Your task to perform on an android device: Open Yahoo.com Image 0: 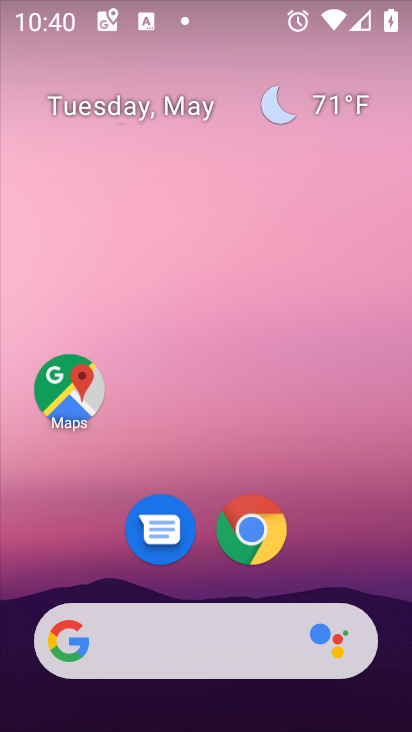
Step 0: drag from (283, 516) to (287, 252)
Your task to perform on an android device: Open Yahoo.com Image 1: 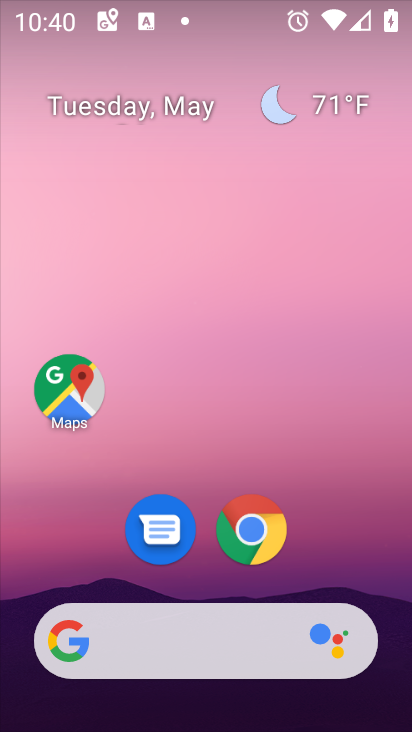
Step 1: drag from (326, 561) to (336, 205)
Your task to perform on an android device: Open Yahoo.com Image 2: 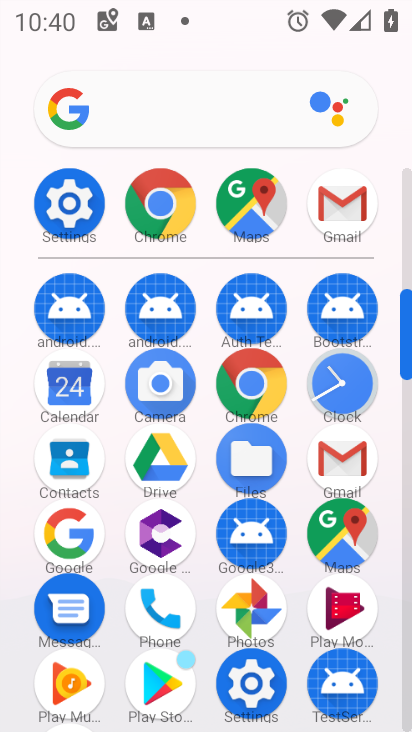
Step 2: click (162, 197)
Your task to perform on an android device: Open Yahoo.com Image 3: 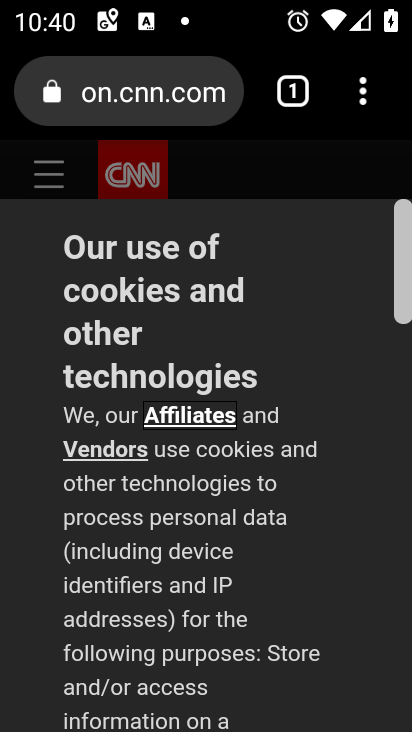
Step 3: click (188, 102)
Your task to perform on an android device: Open Yahoo.com Image 4: 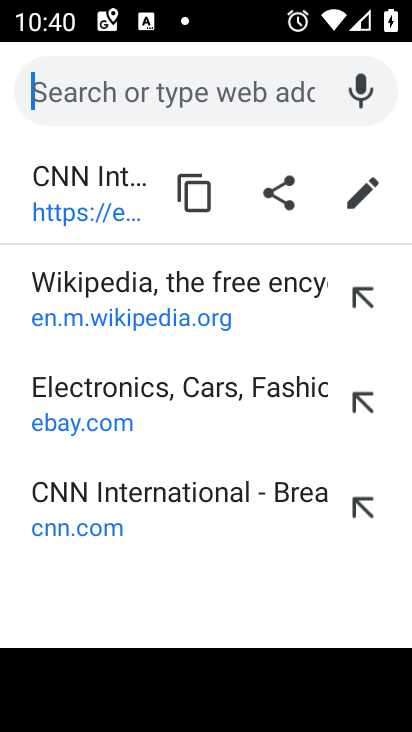
Step 4: type "yahoo"
Your task to perform on an android device: Open Yahoo.com Image 5: 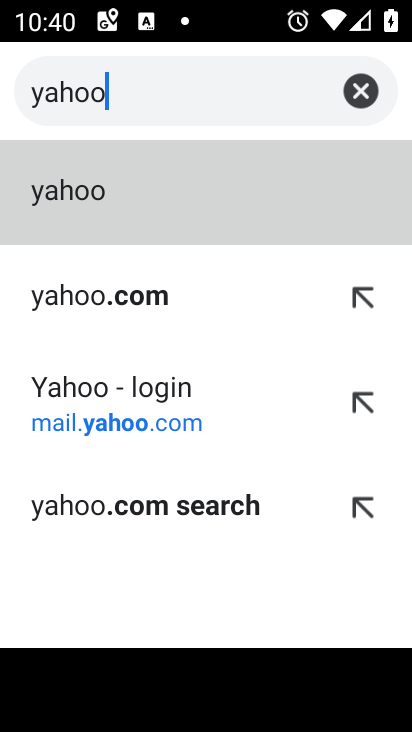
Step 5: click (169, 298)
Your task to perform on an android device: Open Yahoo.com Image 6: 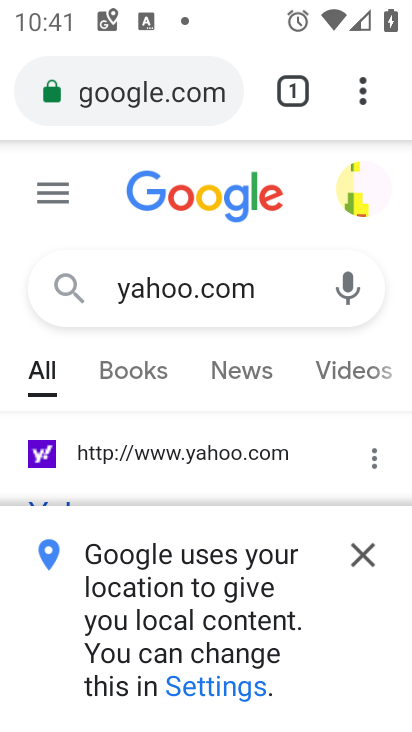
Step 6: task complete